Your task to perform on an android device: empty trash in the gmail app Image 0: 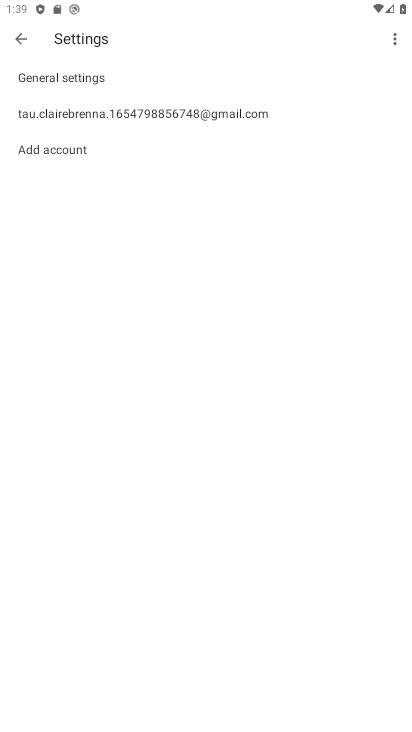
Step 0: press home button
Your task to perform on an android device: empty trash in the gmail app Image 1: 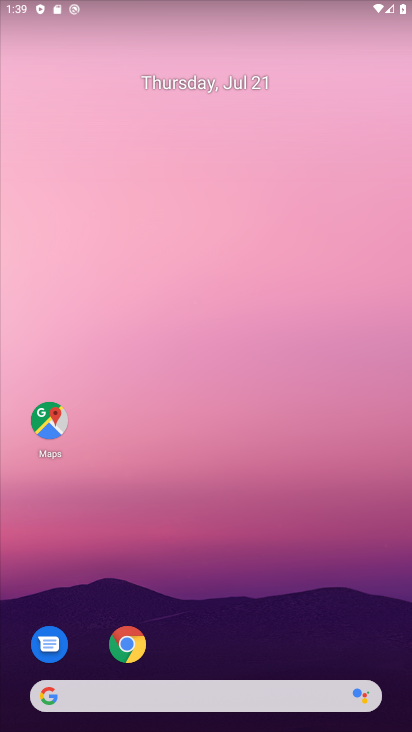
Step 1: drag from (266, 633) to (265, 85)
Your task to perform on an android device: empty trash in the gmail app Image 2: 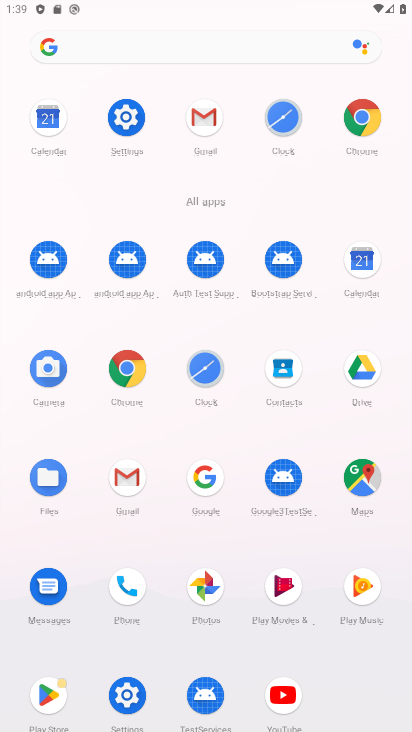
Step 2: click (210, 121)
Your task to perform on an android device: empty trash in the gmail app Image 3: 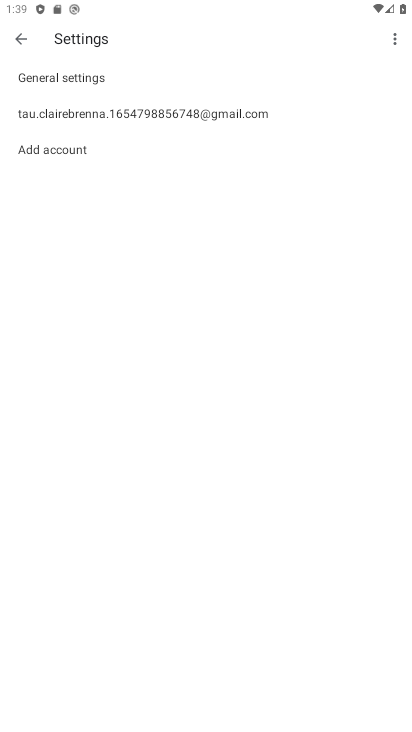
Step 3: click (19, 37)
Your task to perform on an android device: empty trash in the gmail app Image 4: 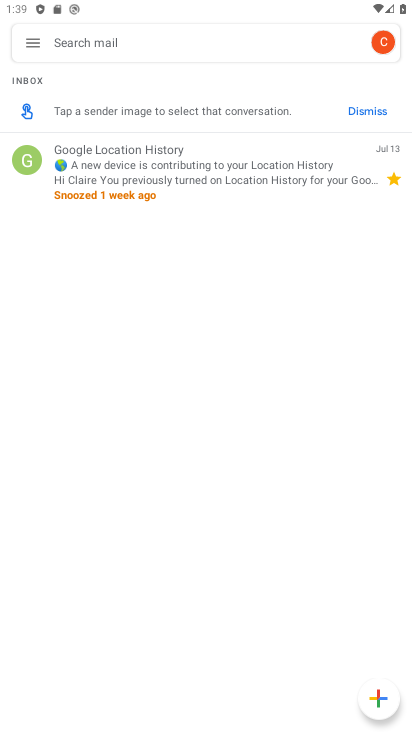
Step 4: click (34, 46)
Your task to perform on an android device: empty trash in the gmail app Image 5: 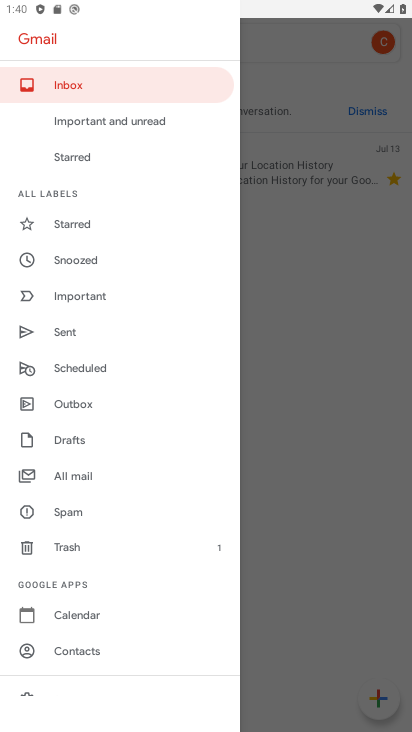
Step 5: click (68, 545)
Your task to perform on an android device: empty trash in the gmail app Image 6: 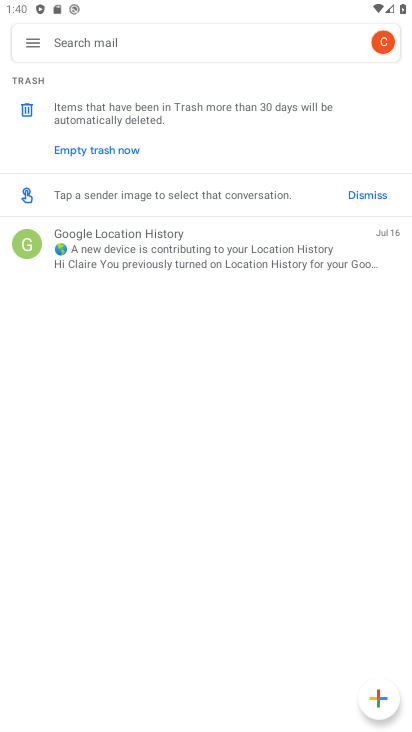
Step 6: click (95, 150)
Your task to perform on an android device: empty trash in the gmail app Image 7: 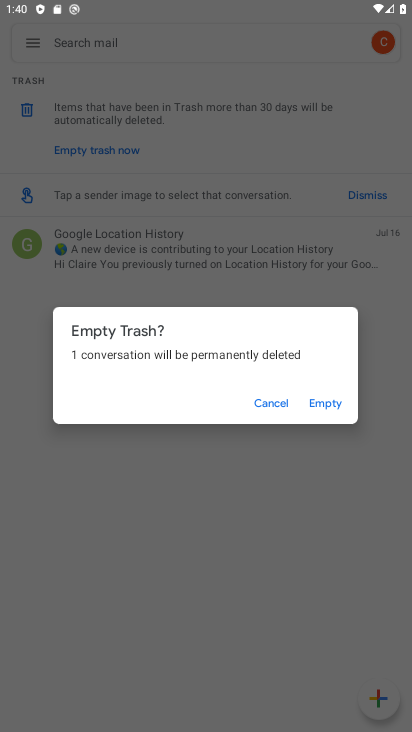
Step 7: click (327, 404)
Your task to perform on an android device: empty trash in the gmail app Image 8: 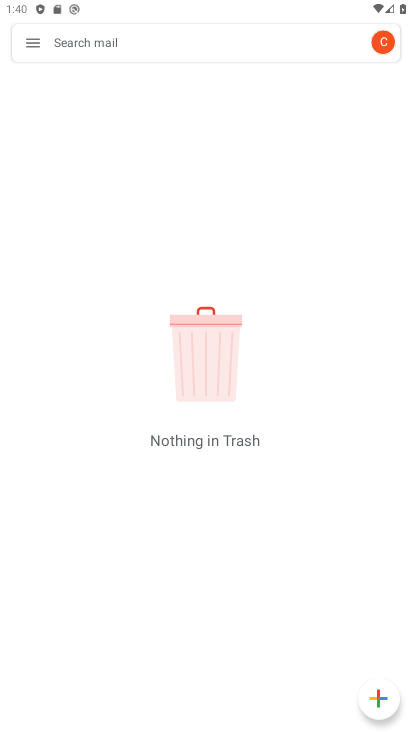
Step 8: task complete